Your task to perform on an android device: Go to Wikipedia Image 0: 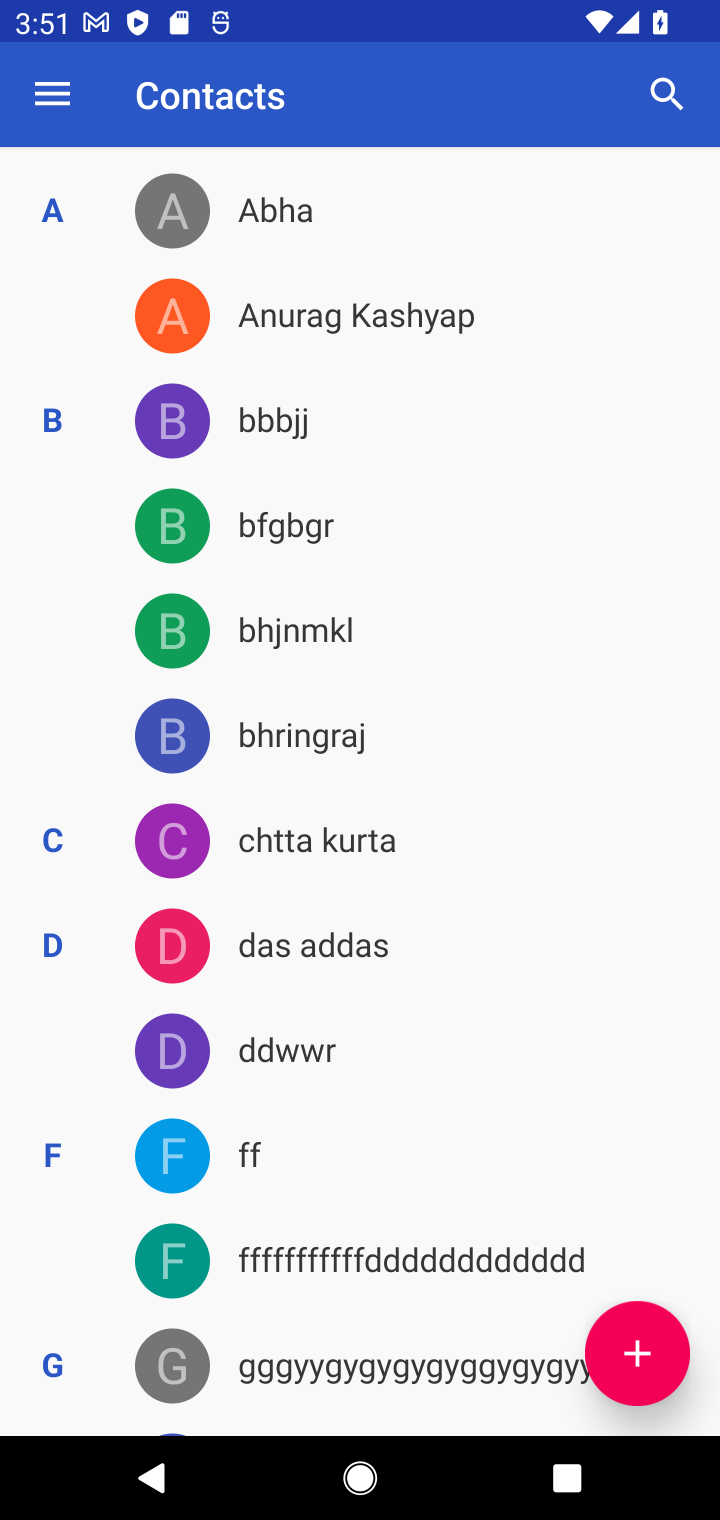
Step 0: press home button
Your task to perform on an android device: Go to Wikipedia Image 1: 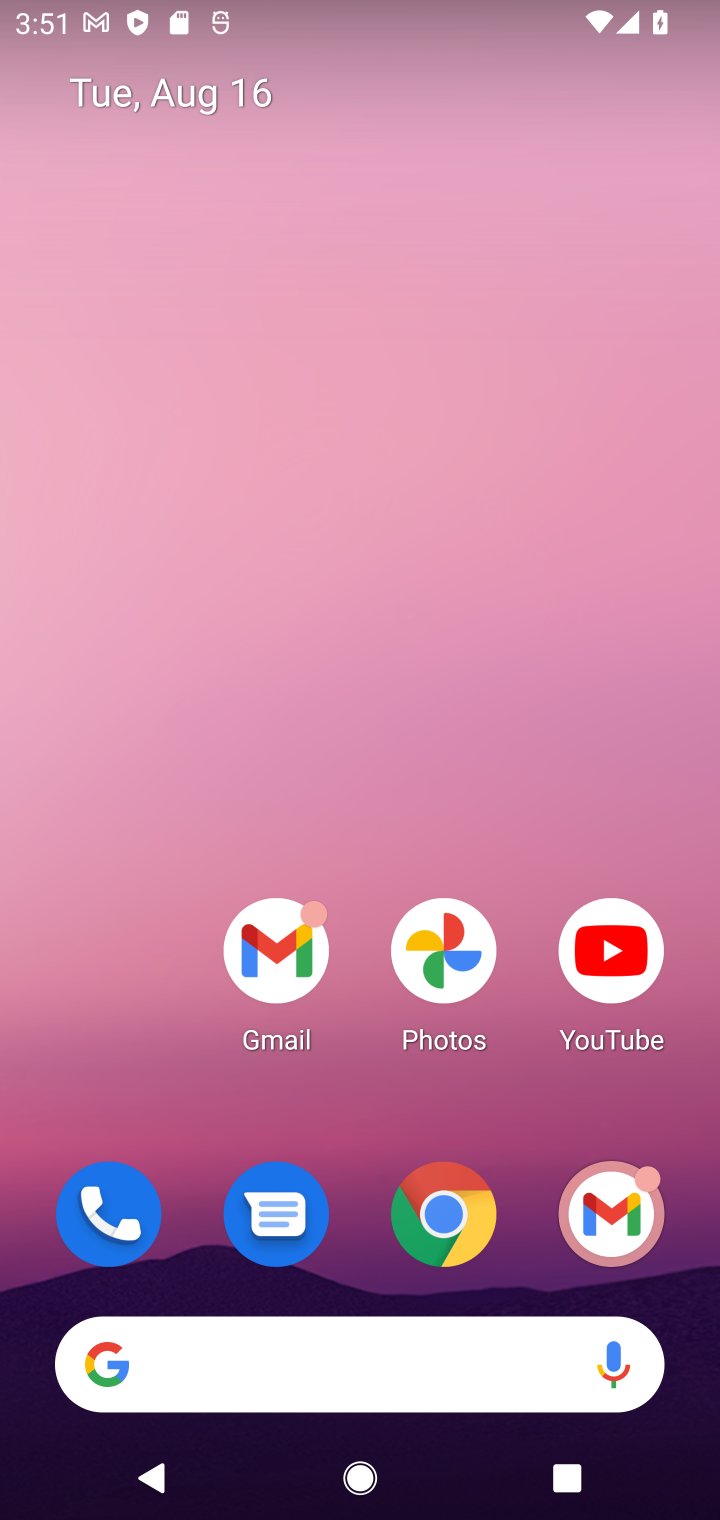
Step 1: click (452, 1256)
Your task to perform on an android device: Go to Wikipedia Image 2: 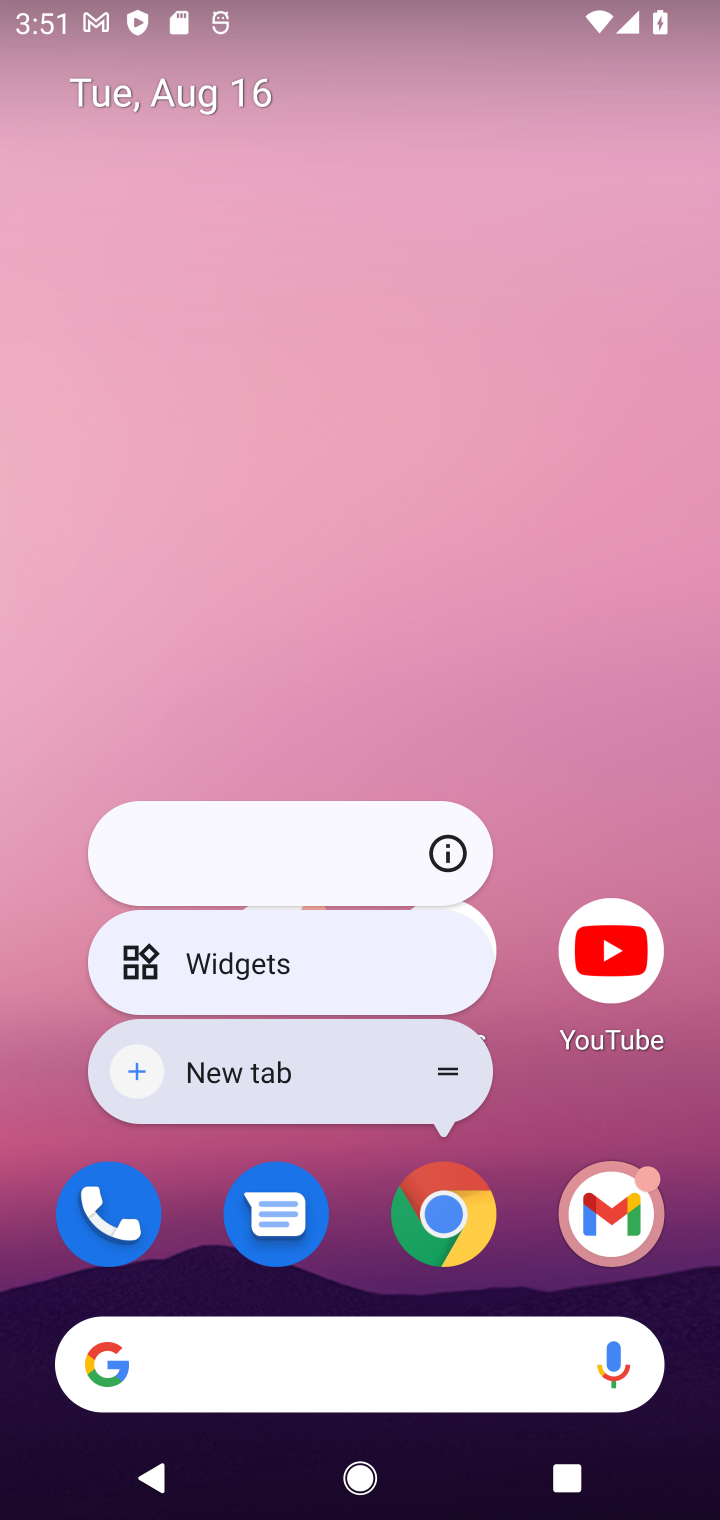
Step 2: click (429, 1186)
Your task to perform on an android device: Go to Wikipedia Image 3: 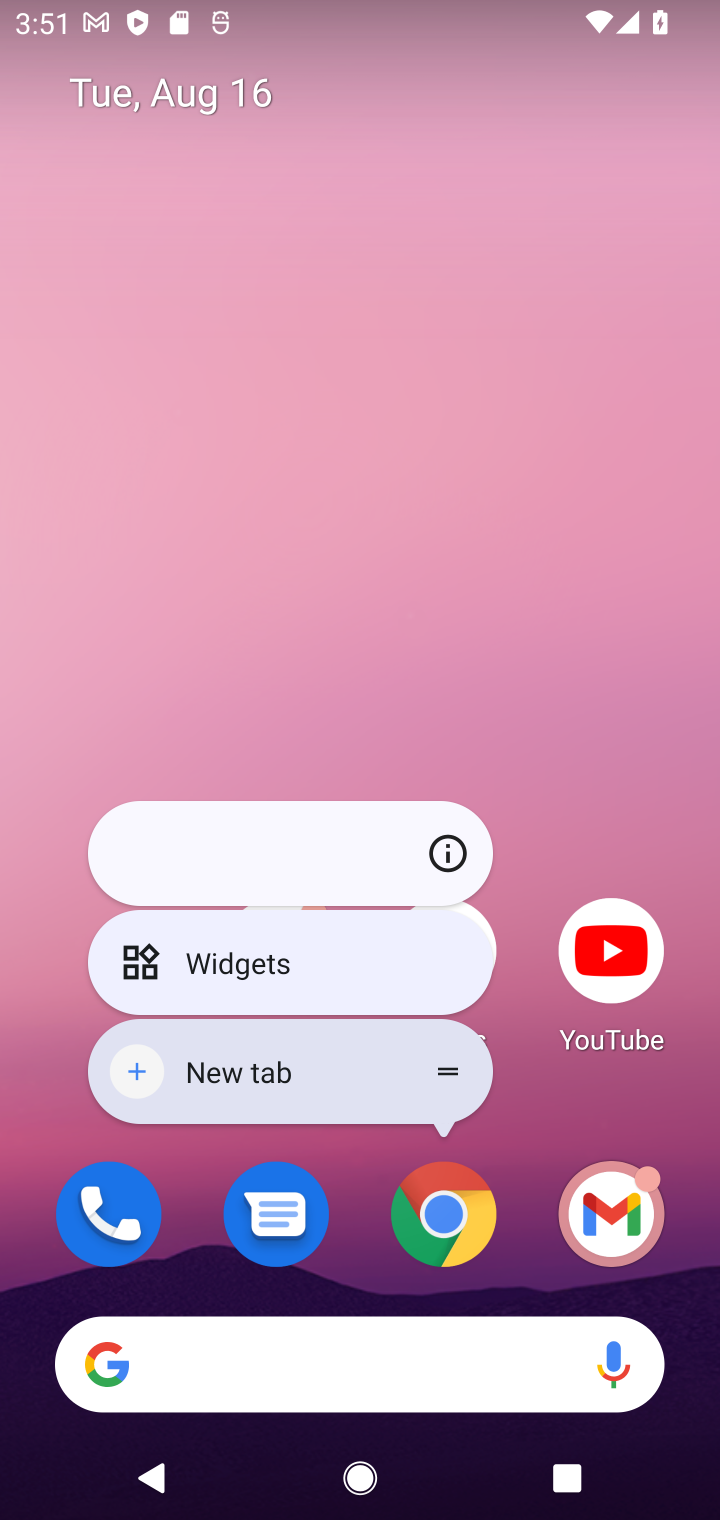
Step 3: click (435, 1201)
Your task to perform on an android device: Go to Wikipedia Image 4: 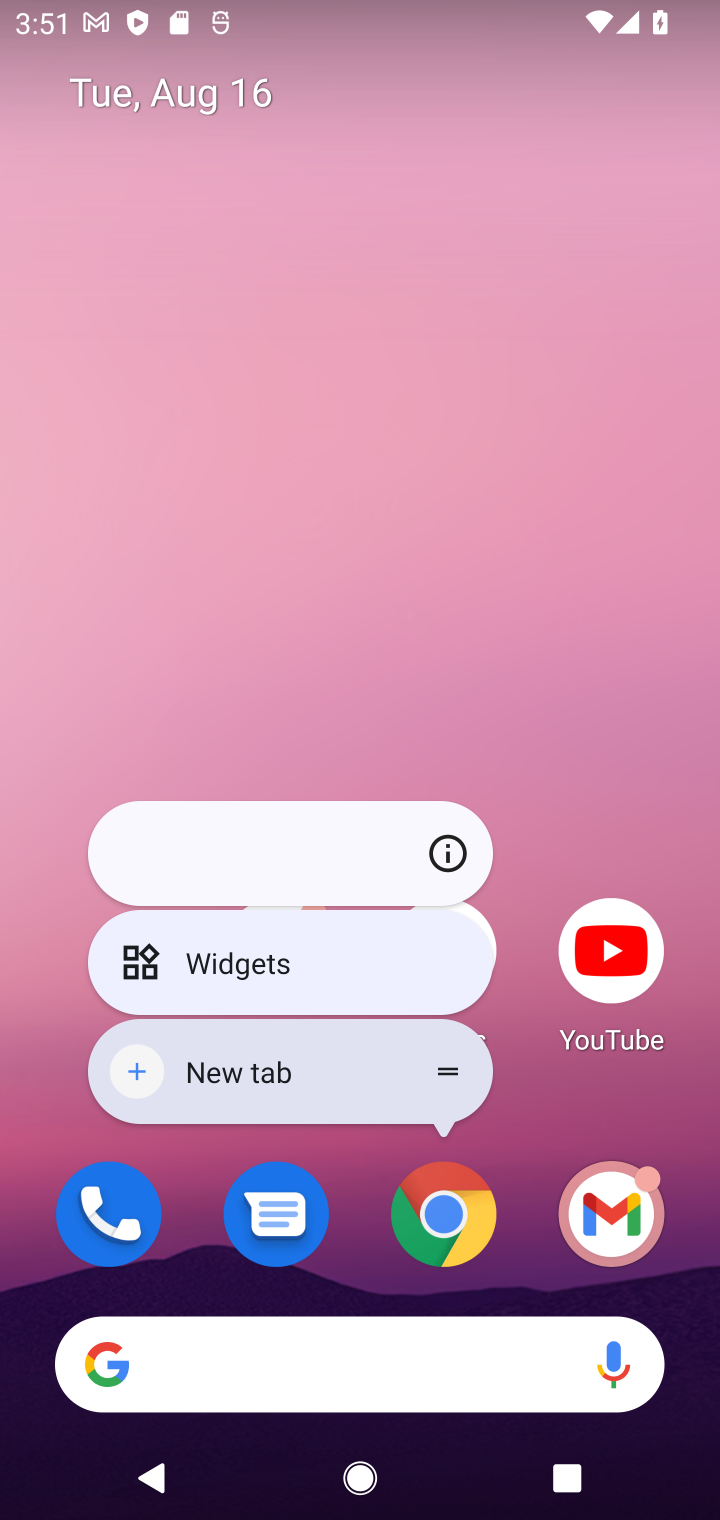
Step 4: click (435, 1201)
Your task to perform on an android device: Go to Wikipedia Image 5: 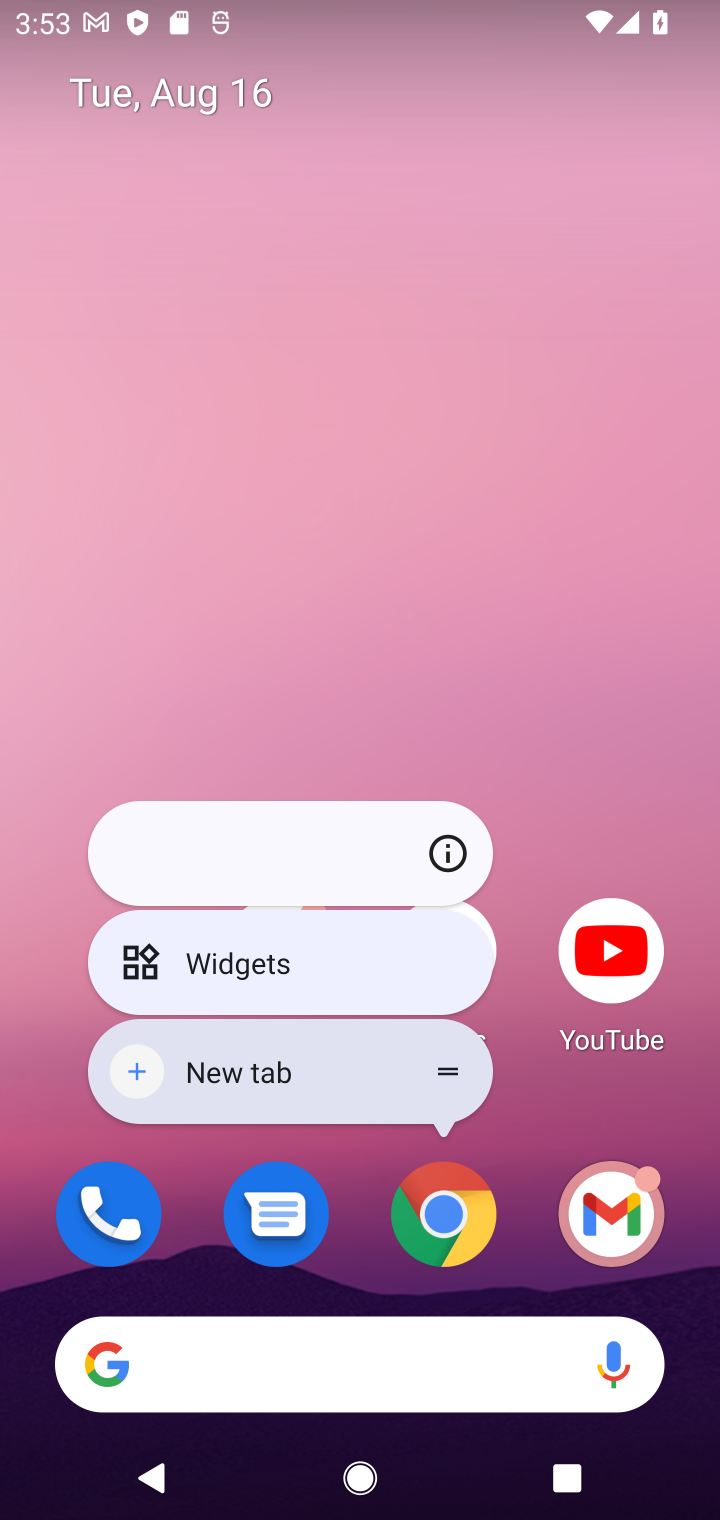
Step 5: click (438, 1213)
Your task to perform on an android device: Go to Wikipedia Image 6: 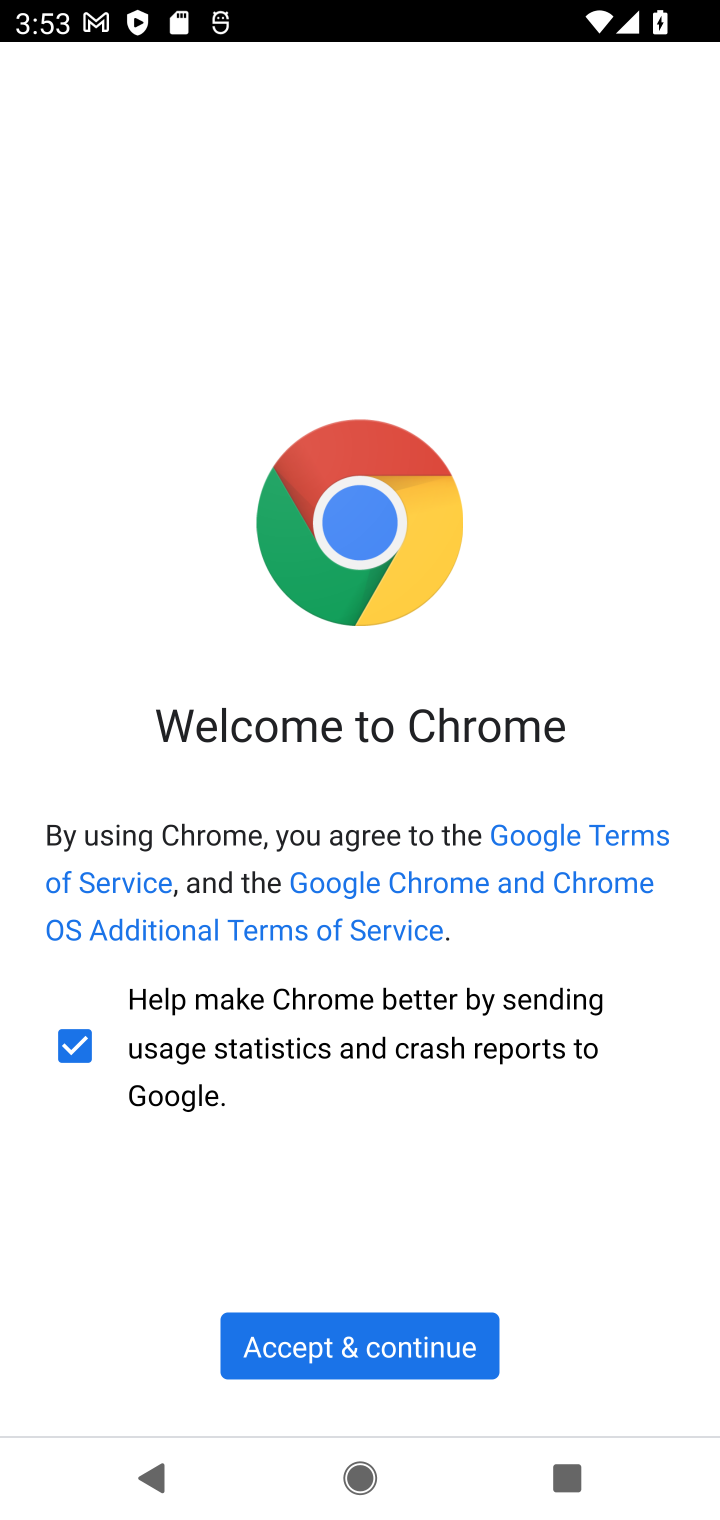
Step 6: click (298, 1334)
Your task to perform on an android device: Go to Wikipedia Image 7: 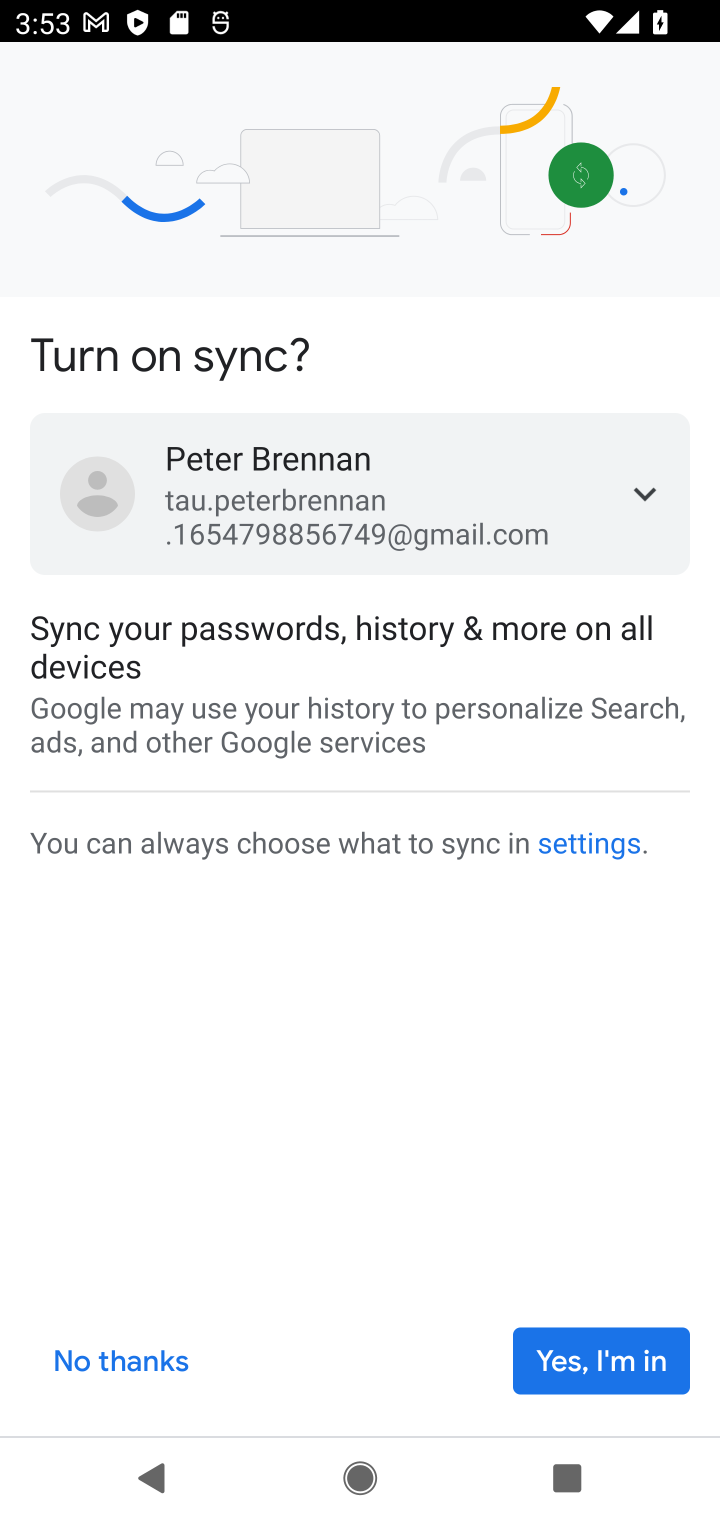
Step 7: click (573, 1385)
Your task to perform on an android device: Go to Wikipedia Image 8: 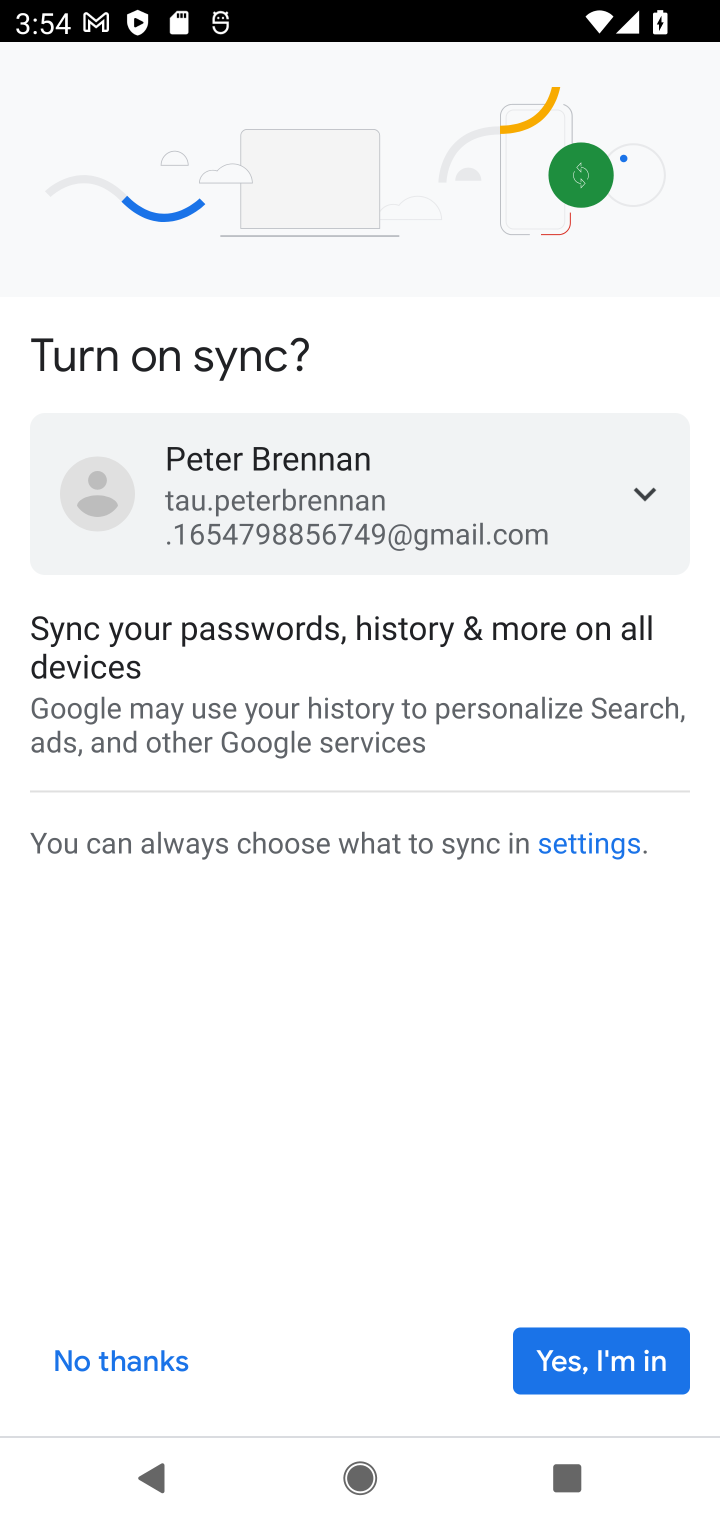
Step 8: click (562, 1347)
Your task to perform on an android device: Go to Wikipedia Image 9: 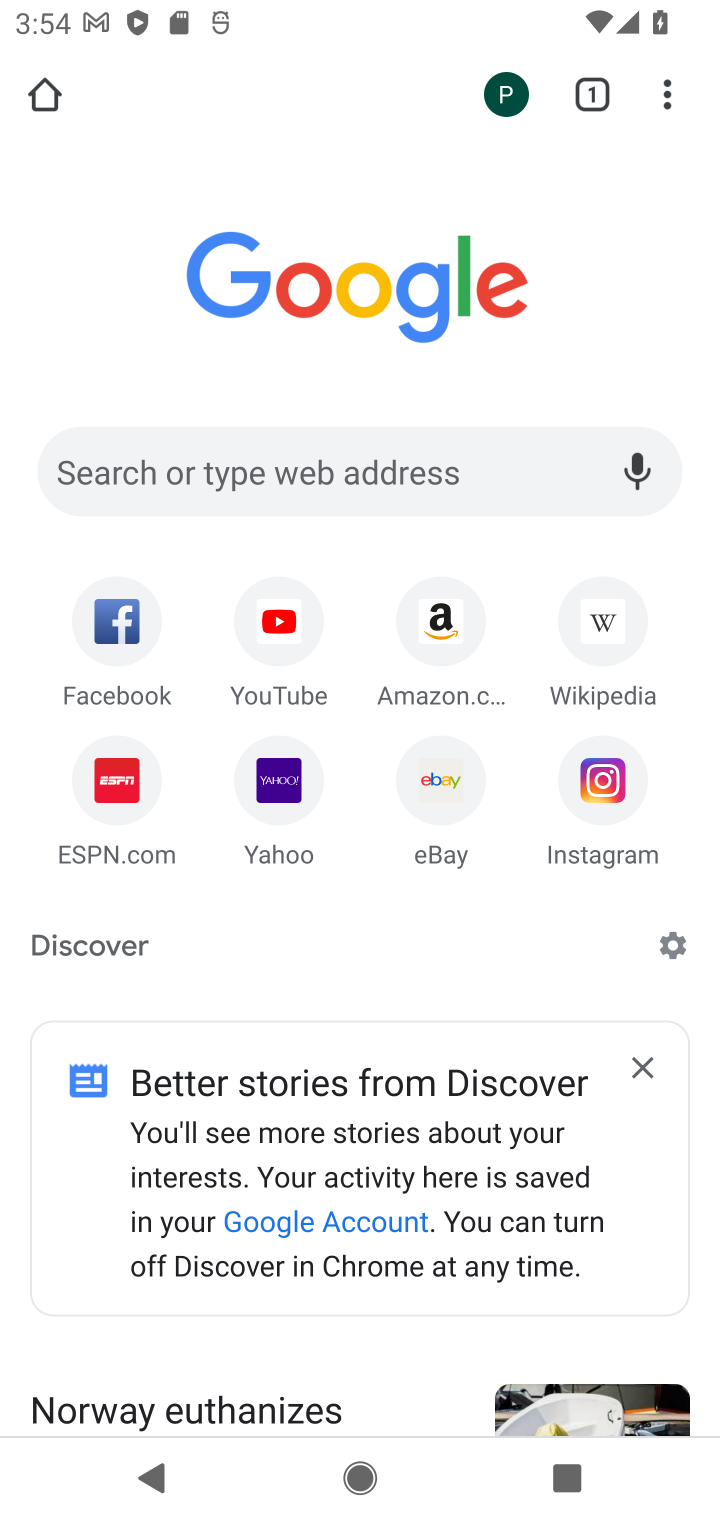
Step 9: click (596, 611)
Your task to perform on an android device: Go to Wikipedia Image 10: 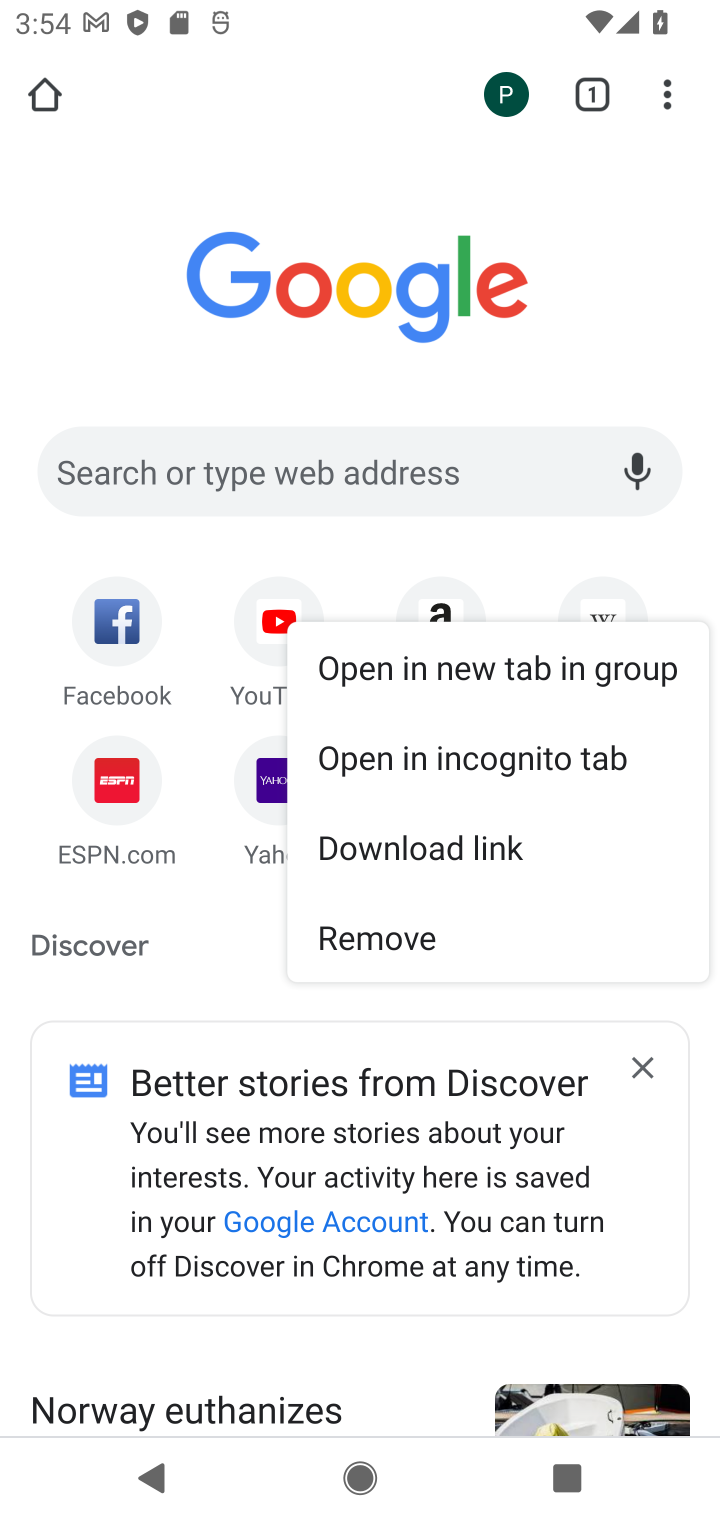
Step 10: click (578, 596)
Your task to perform on an android device: Go to Wikipedia Image 11: 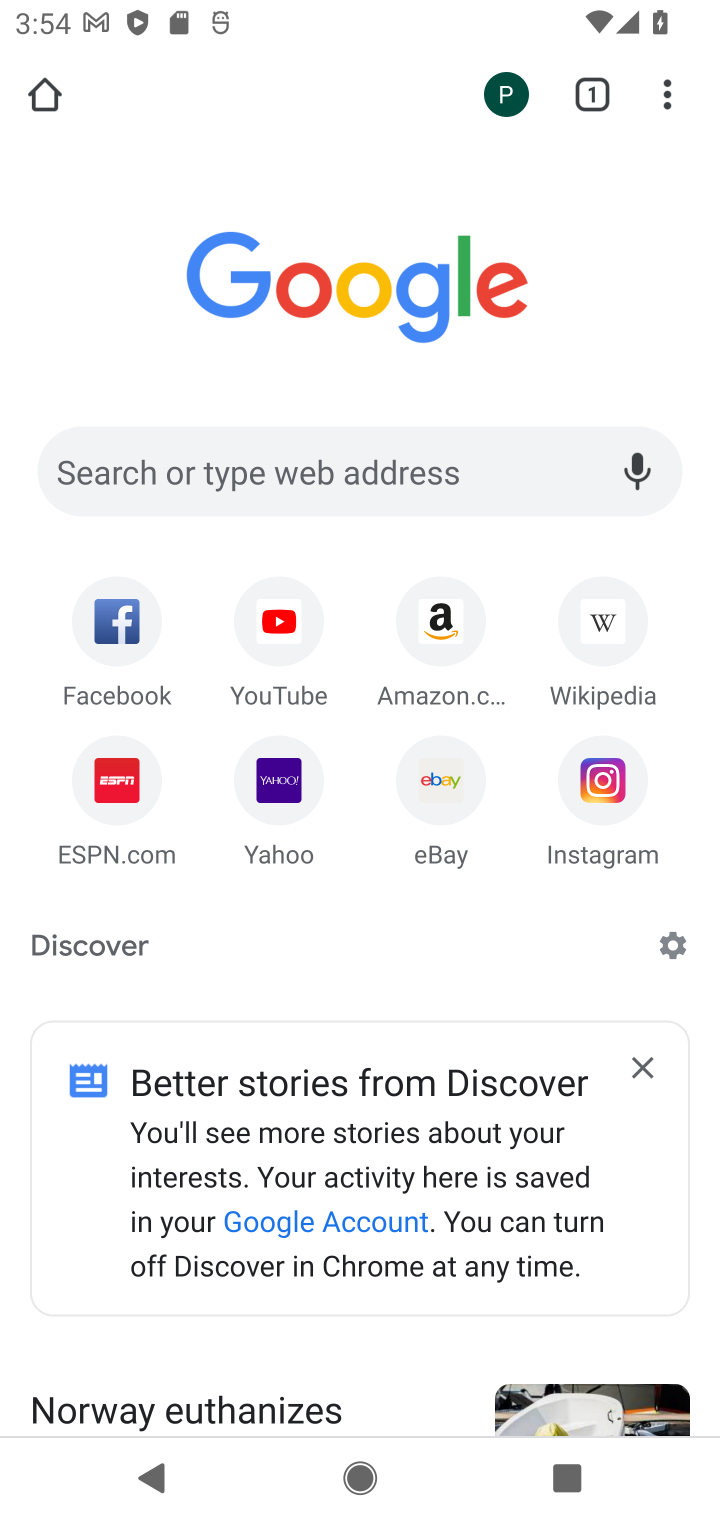
Step 11: click (603, 623)
Your task to perform on an android device: Go to Wikipedia Image 12: 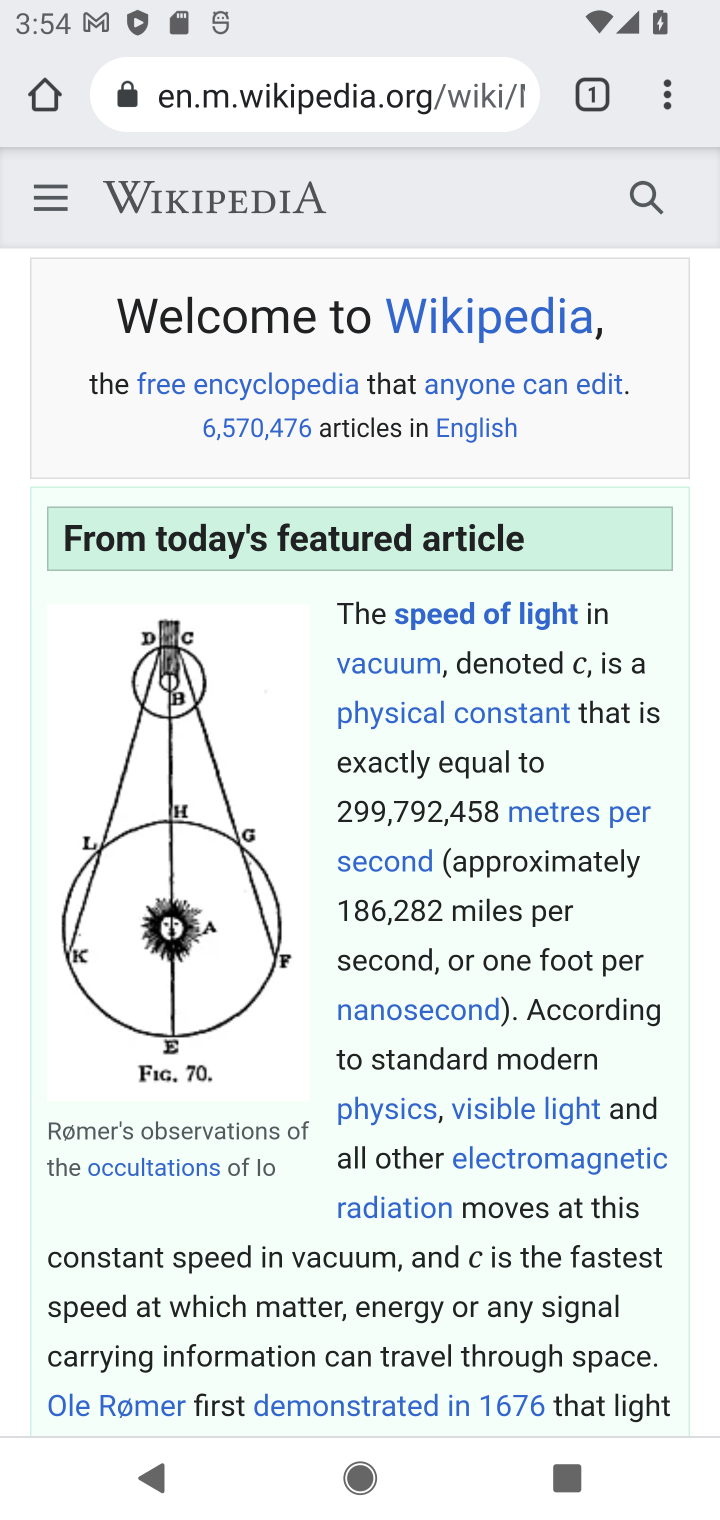
Step 12: task complete